Your task to perform on an android device: Turn on the flashlight Image 0: 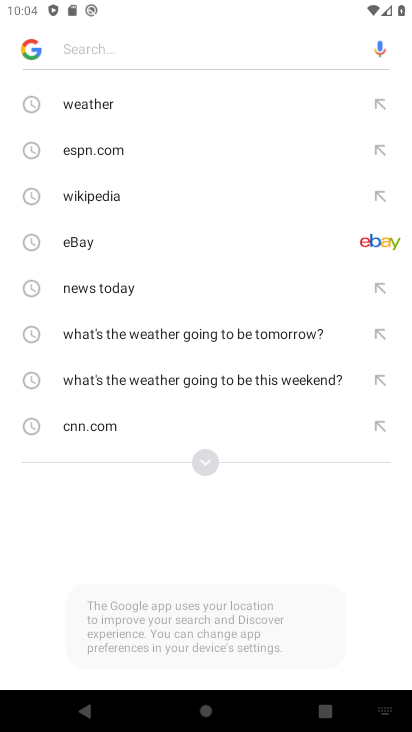
Step 0: press home button
Your task to perform on an android device: Turn on the flashlight Image 1: 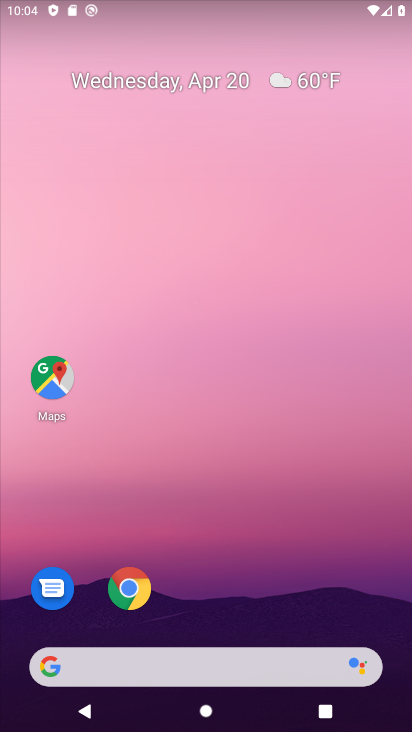
Step 1: drag from (287, 91) to (369, 438)
Your task to perform on an android device: Turn on the flashlight Image 2: 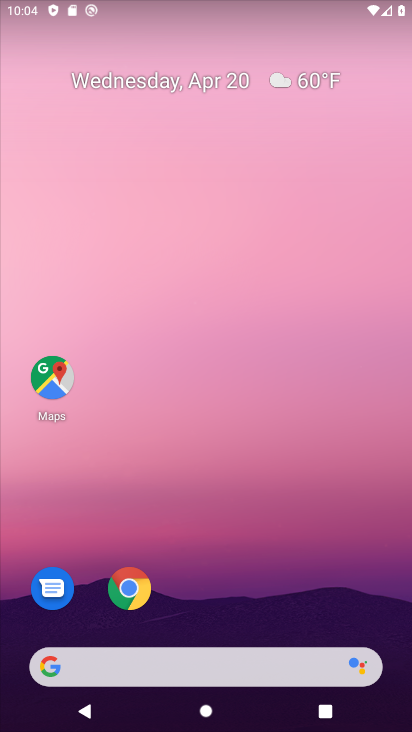
Step 2: drag from (338, 5) to (237, 301)
Your task to perform on an android device: Turn on the flashlight Image 3: 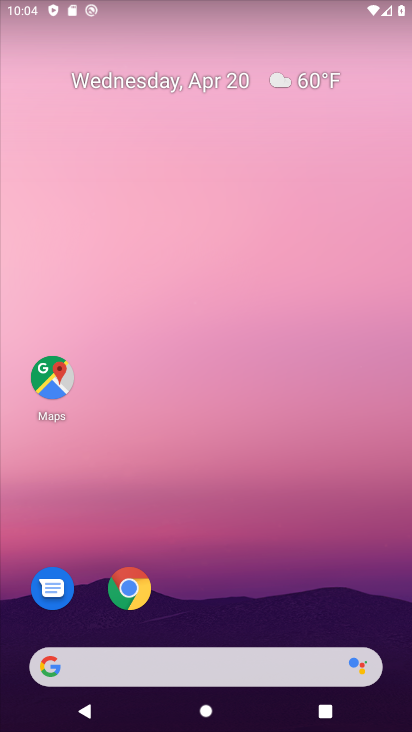
Step 3: drag from (274, 1) to (246, 297)
Your task to perform on an android device: Turn on the flashlight Image 4: 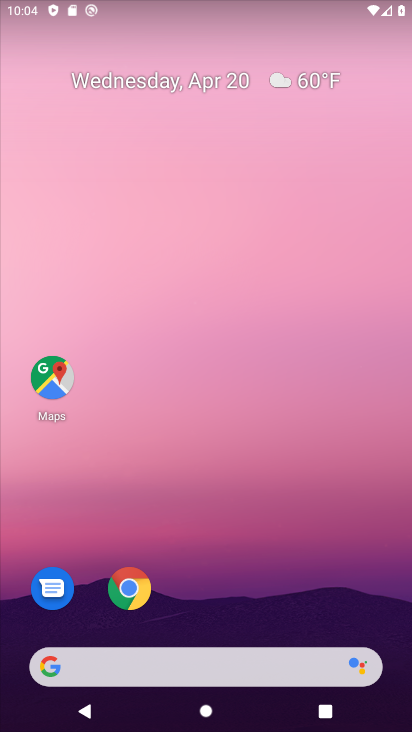
Step 4: drag from (320, 0) to (332, 206)
Your task to perform on an android device: Turn on the flashlight Image 5: 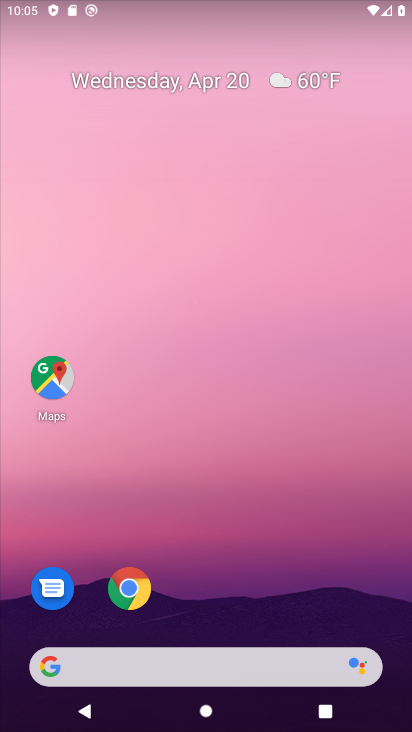
Step 5: drag from (322, 3) to (250, 328)
Your task to perform on an android device: Turn on the flashlight Image 6: 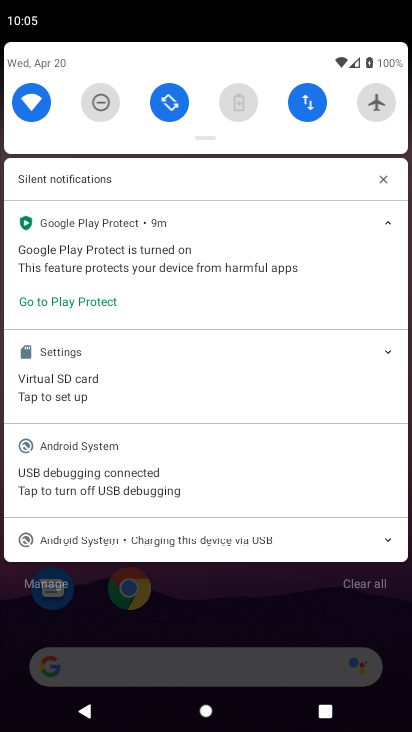
Step 6: click (257, 10)
Your task to perform on an android device: Turn on the flashlight Image 7: 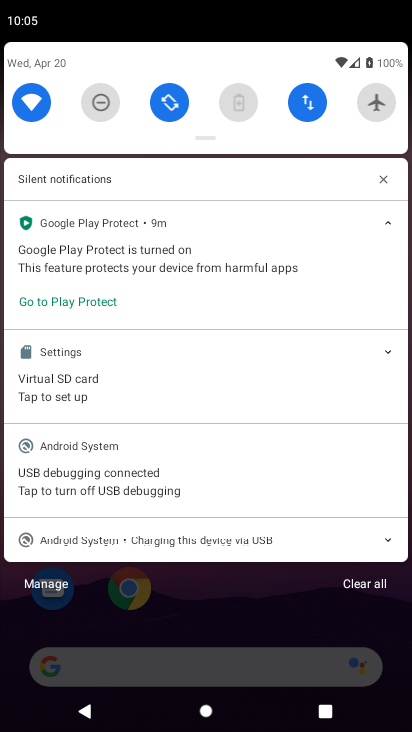
Step 7: task complete